Your task to perform on an android device: Show me the alarms in the clock app Image 0: 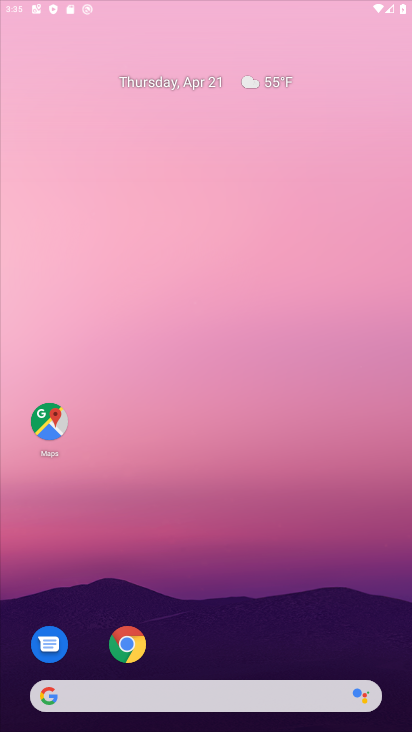
Step 0: drag from (78, 8) to (151, 15)
Your task to perform on an android device: Show me the alarms in the clock app Image 1: 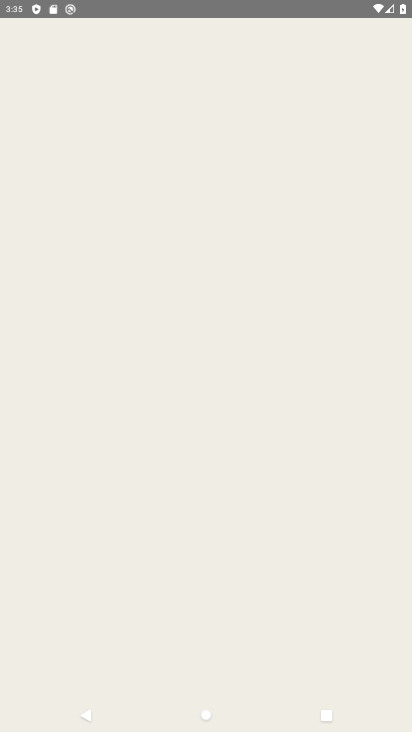
Step 1: press home button
Your task to perform on an android device: Show me the alarms in the clock app Image 2: 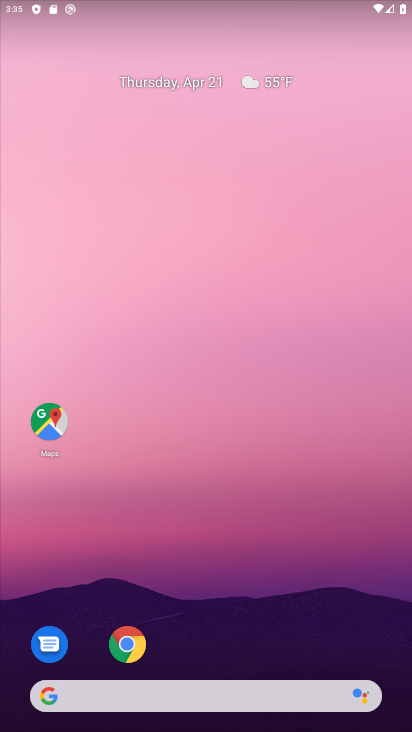
Step 2: drag from (211, 670) to (118, 129)
Your task to perform on an android device: Show me the alarms in the clock app Image 3: 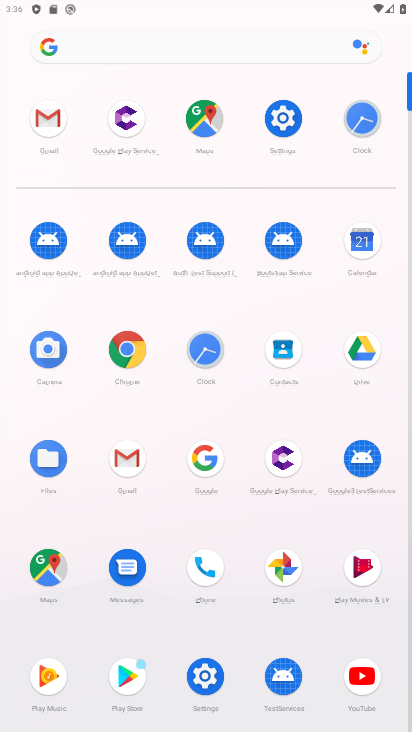
Step 3: click (211, 358)
Your task to perform on an android device: Show me the alarms in the clock app Image 4: 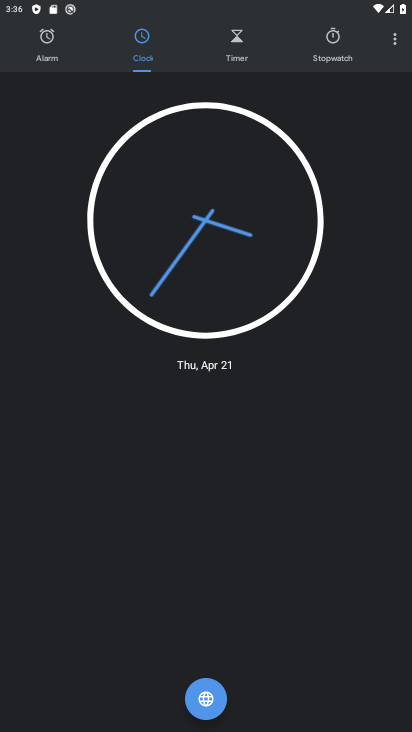
Step 4: click (27, 61)
Your task to perform on an android device: Show me the alarms in the clock app Image 5: 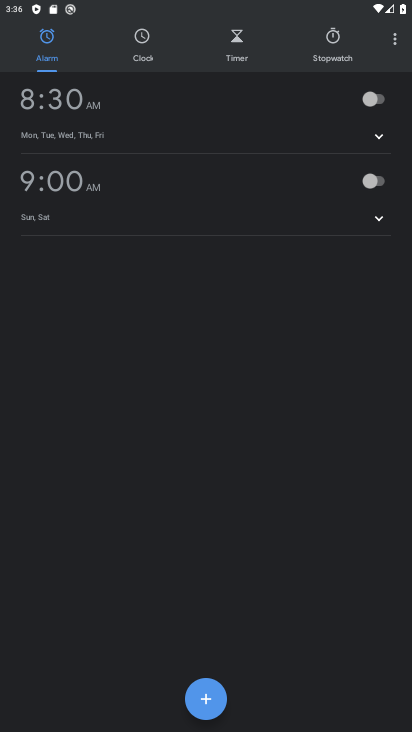
Step 5: click (226, 697)
Your task to perform on an android device: Show me the alarms in the clock app Image 6: 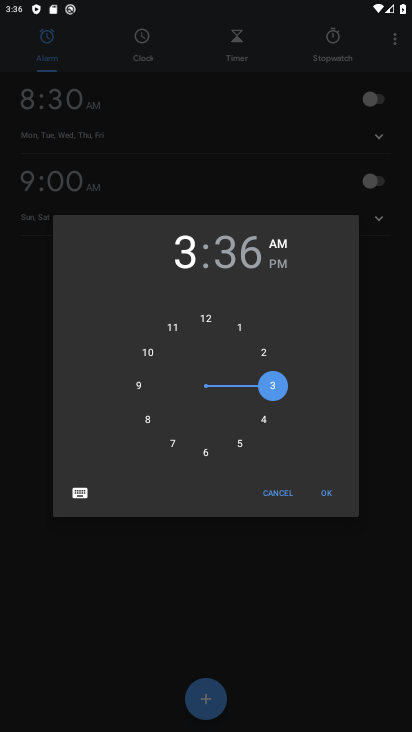
Step 6: click (321, 489)
Your task to perform on an android device: Show me the alarms in the clock app Image 7: 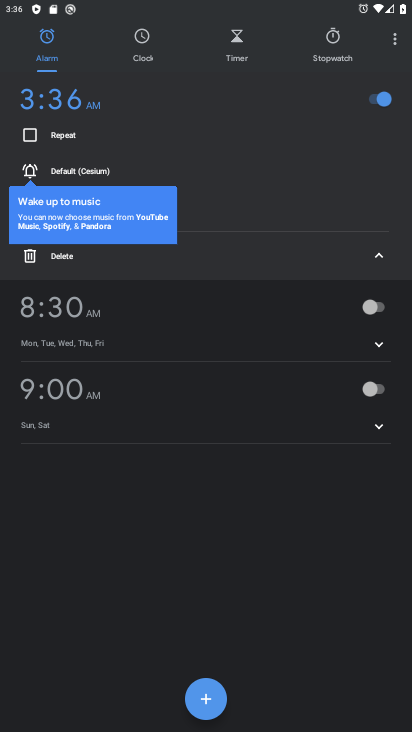
Step 7: task complete